Your task to perform on an android device: find snoozed emails in the gmail app Image 0: 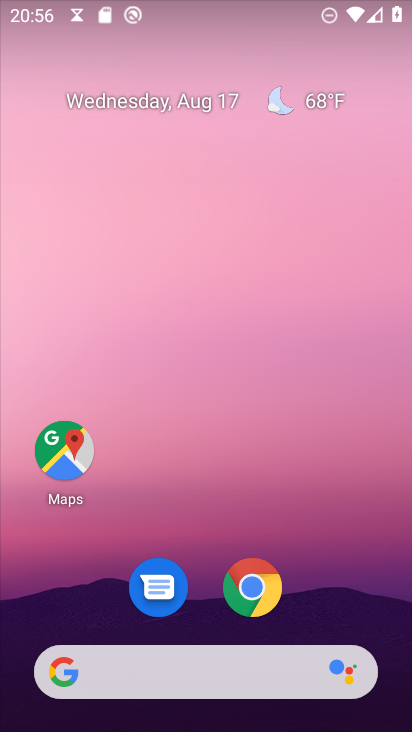
Step 0: drag from (22, 691) to (292, 179)
Your task to perform on an android device: find snoozed emails in the gmail app Image 1: 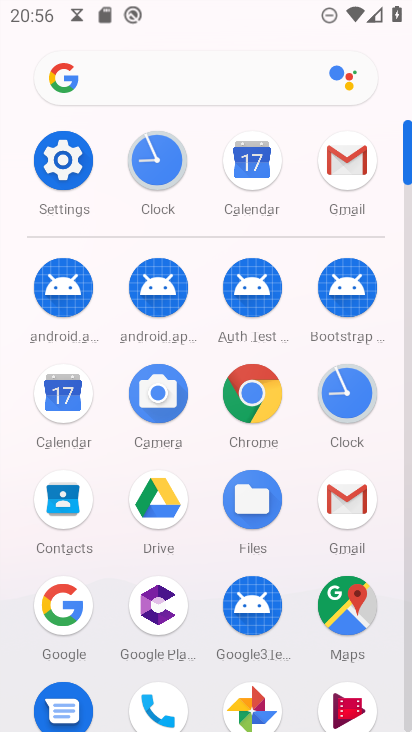
Step 1: click (340, 507)
Your task to perform on an android device: find snoozed emails in the gmail app Image 2: 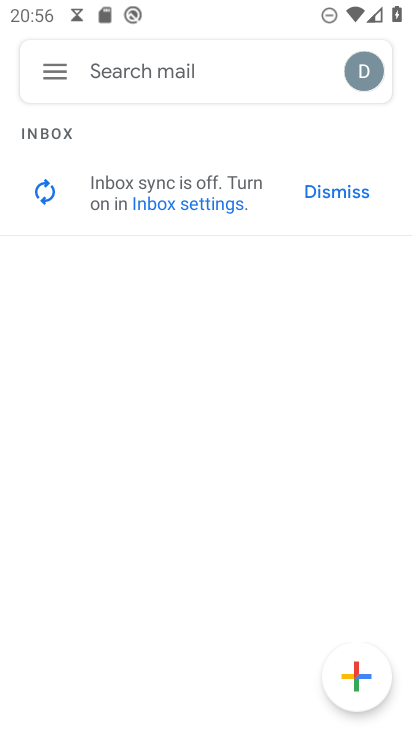
Step 2: click (56, 77)
Your task to perform on an android device: find snoozed emails in the gmail app Image 3: 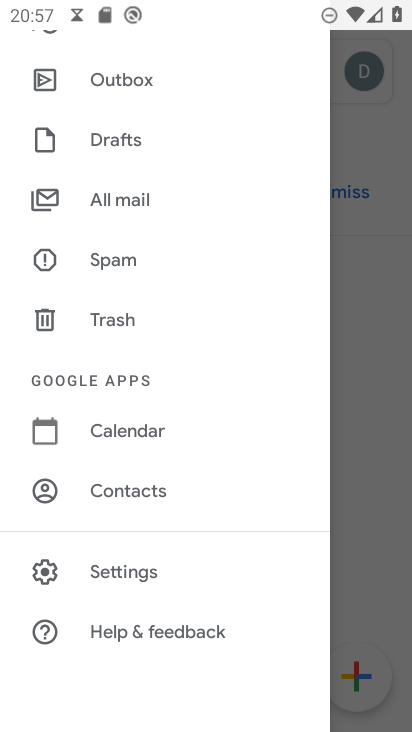
Step 3: drag from (193, 75) to (246, 523)
Your task to perform on an android device: find snoozed emails in the gmail app Image 4: 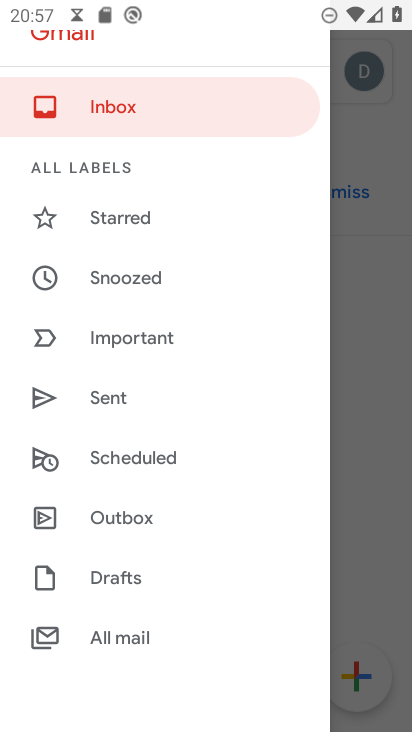
Step 4: click (106, 273)
Your task to perform on an android device: find snoozed emails in the gmail app Image 5: 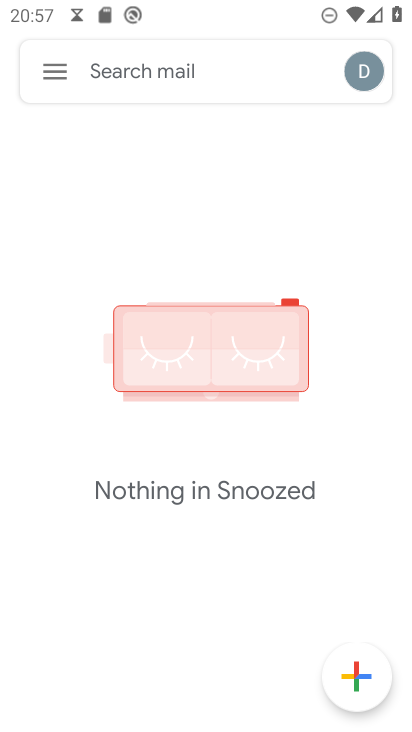
Step 5: task complete